Your task to perform on an android device: Open display settings Image 0: 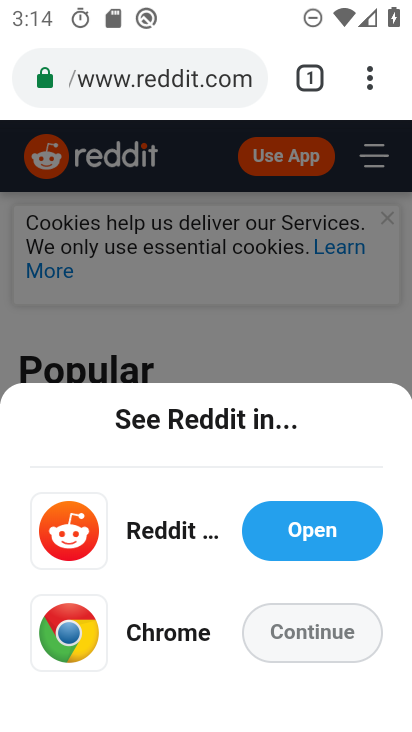
Step 0: press home button
Your task to perform on an android device: Open display settings Image 1: 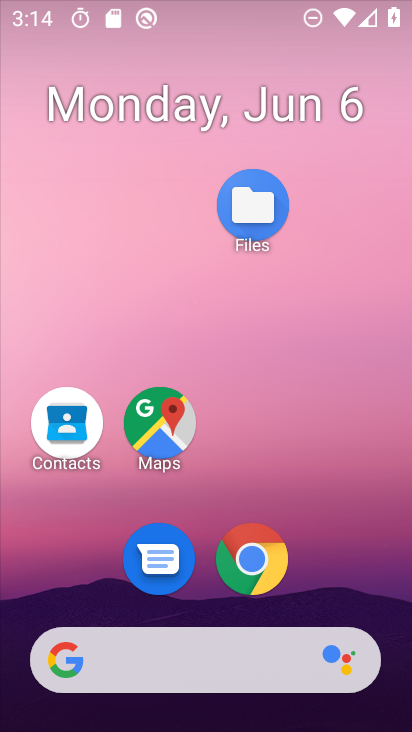
Step 1: drag from (165, 502) to (167, 53)
Your task to perform on an android device: Open display settings Image 2: 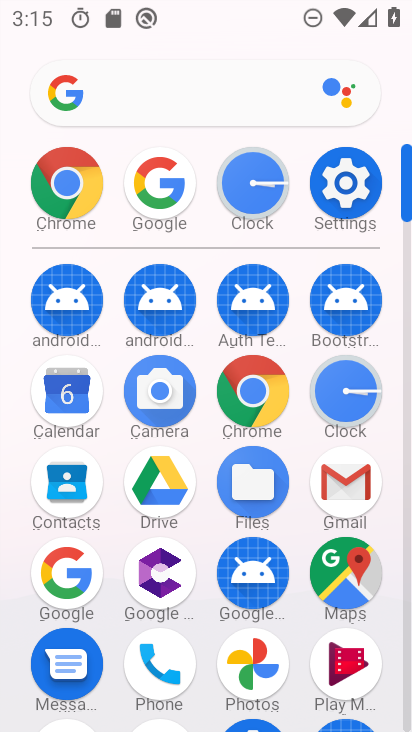
Step 2: click (348, 216)
Your task to perform on an android device: Open display settings Image 3: 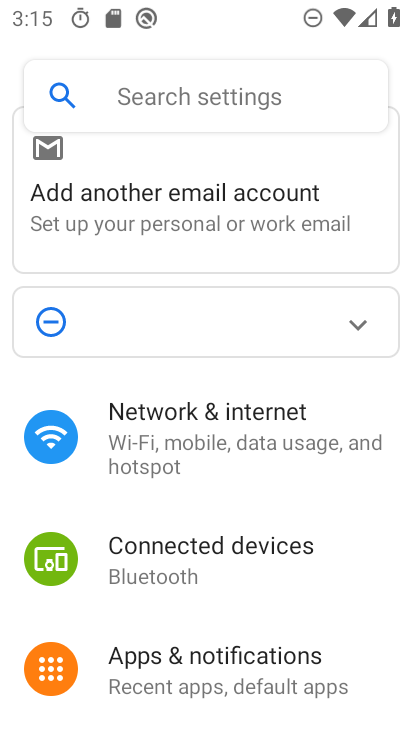
Step 3: drag from (209, 593) to (254, 268)
Your task to perform on an android device: Open display settings Image 4: 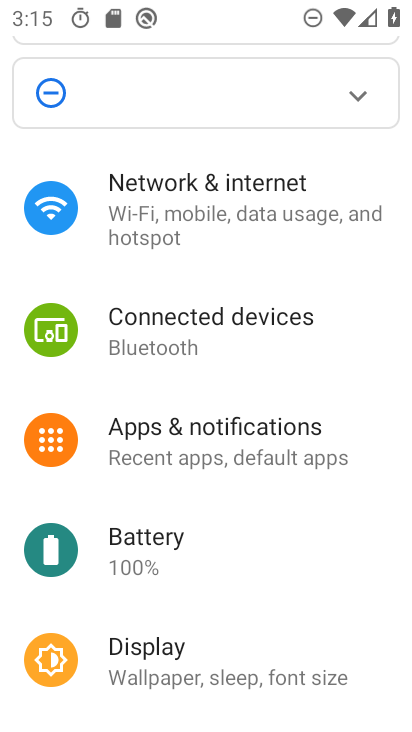
Step 4: drag from (256, 551) to (279, 328)
Your task to perform on an android device: Open display settings Image 5: 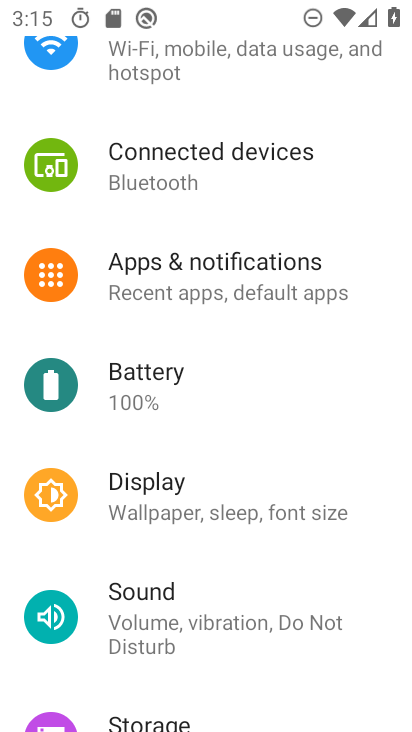
Step 5: click (278, 484)
Your task to perform on an android device: Open display settings Image 6: 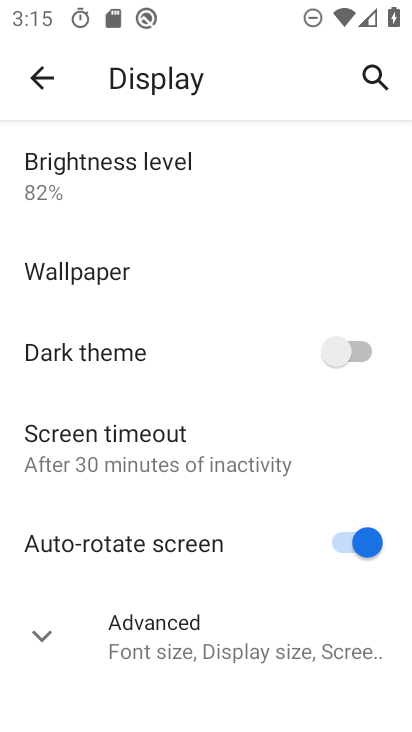
Step 6: task complete